Your task to perform on an android device: Open network settings Image 0: 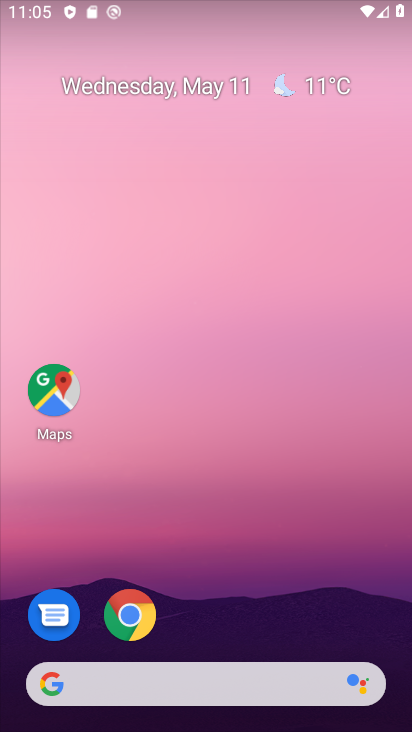
Step 0: drag from (237, 651) to (314, 118)
Your task to perform on an android device: Open network settings Image 1: 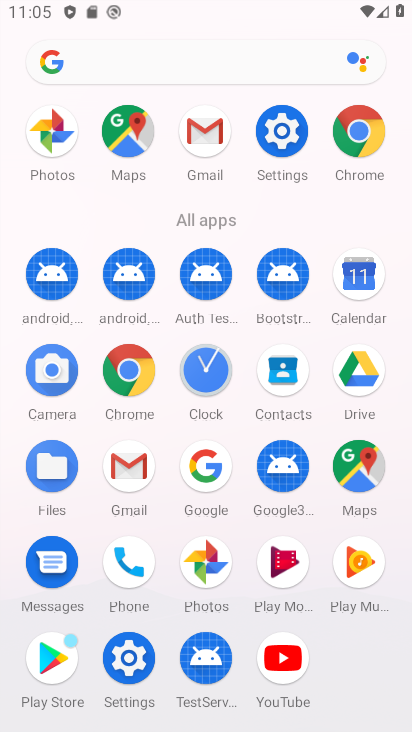
Step 1: click (284, 140)
Your task to perform on an android device: Open network settings Image 2: 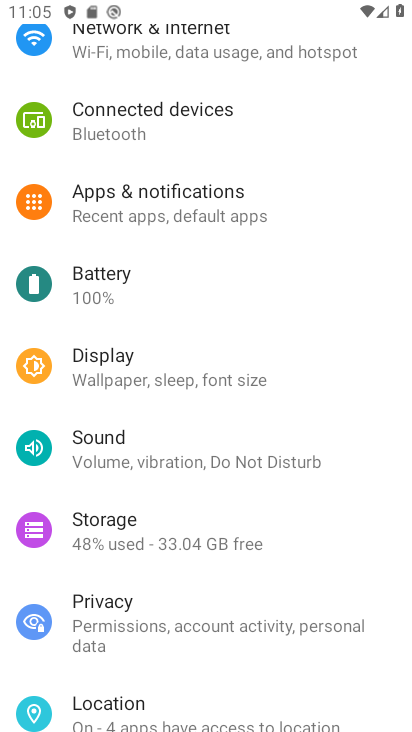
Step 2: drag from (277, 143) to (222, 534)
Your task to perform on an android device: Open network settings Image 3: 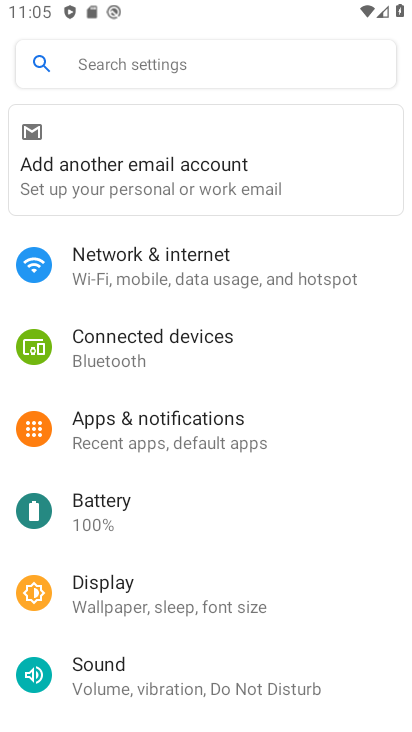
Step 3: click (229, 276)
Your task to perform on an android device: Open network settings Image 4: 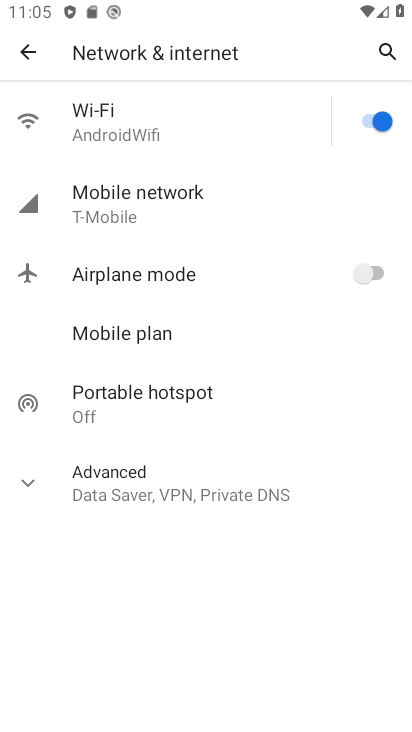
Step 4: click (305, 482)
Your task to perform on an android device: Open network settings Image 5: 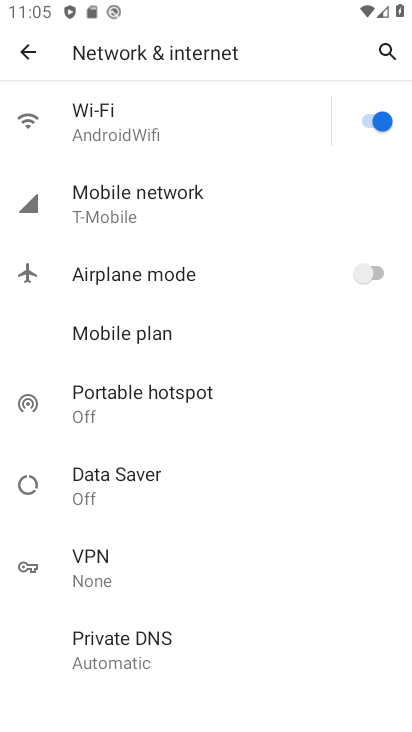
Step 5: click (237, 222)
Your task to perform on an android device: Open network settings Image 6: 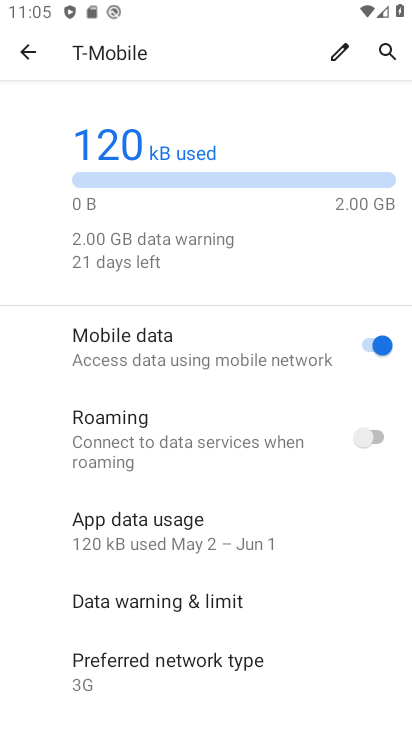
Step 6: task complete